Your task to perform on an android device: Open Maps and search for coffee Image 0: 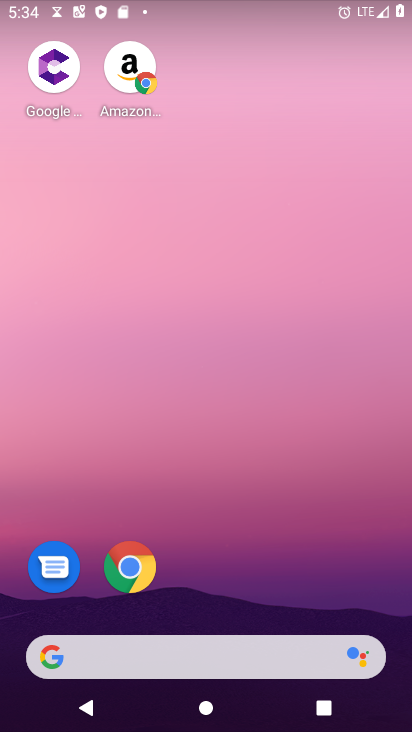
Step 0: drag from (224, 679) to (188, 10)
Your task to perform on an android device: Open Maps and search for coffee Image 1: 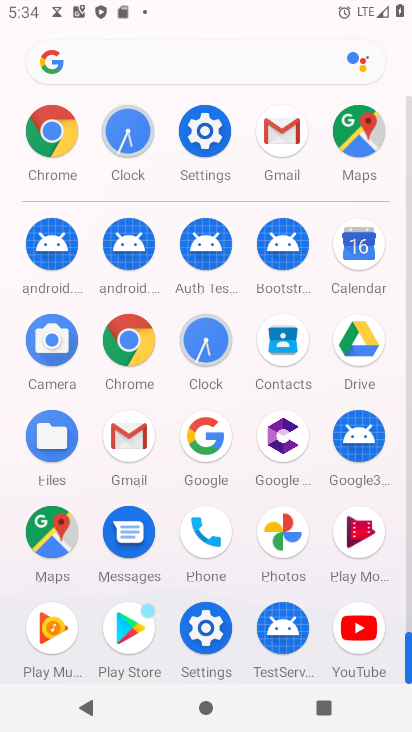
Step 1: click (60, 531)
Your task to perform on an android device: Open Maps and search for coffee Image 2: 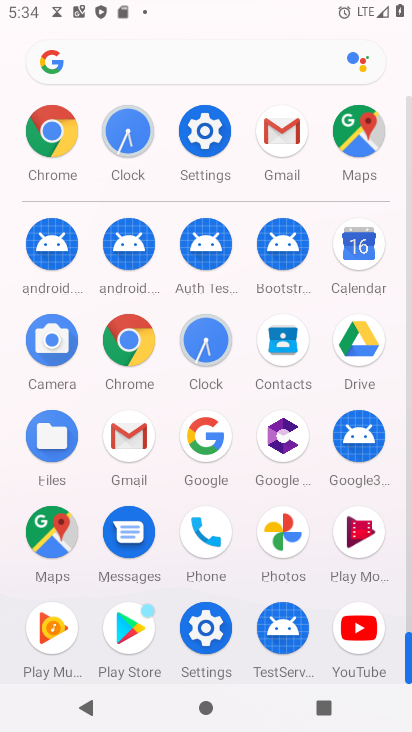
Step 2: click (59, 531)
Your task to perform on an android device: Open Maps and search for coffee Image 3: 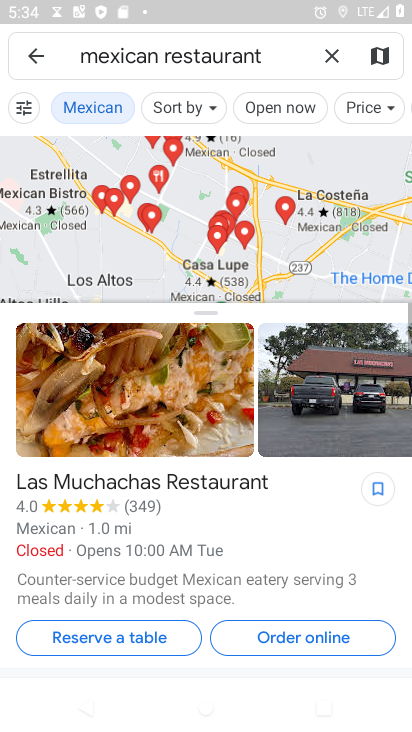
Step 3: click (331, 57)
Your task to perform on an android device: Open Maps and search for coffee Image 4: 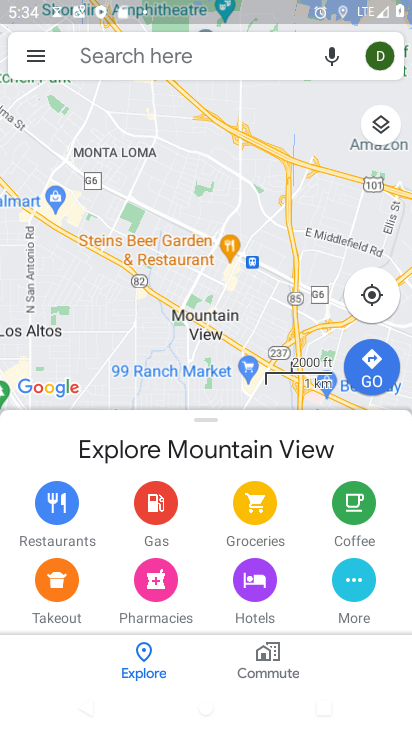
Step 4: click (247, 53)
Your task to perform on an android device: Open Maps and search for coffee Image 5: 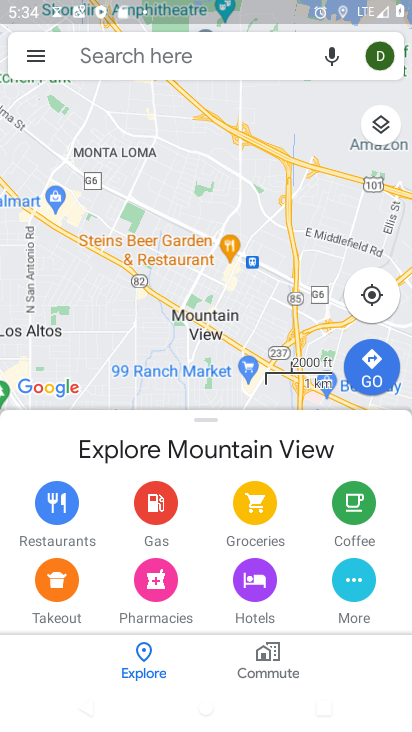
Step 5: click (247, 53)
Your task to perform on an android device: Open Maps and search for coffee Image 6: 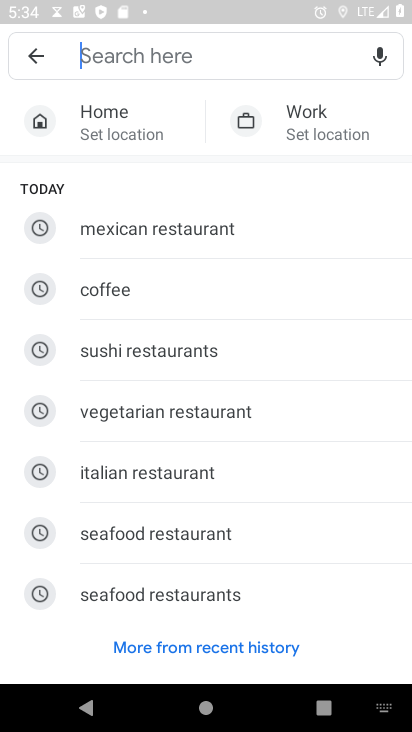
Step 6: click (167, 296)
Your task to perform on an android device: Open Maps and search for coffee Image 7: 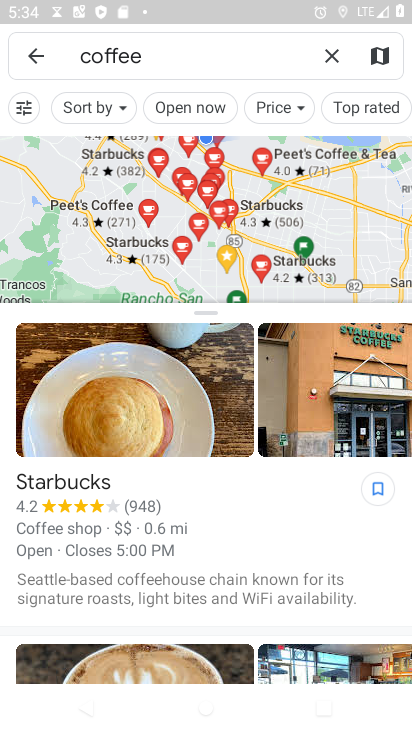
Step 7: task complete